Your task to perform on an android device: check android version Image 0: 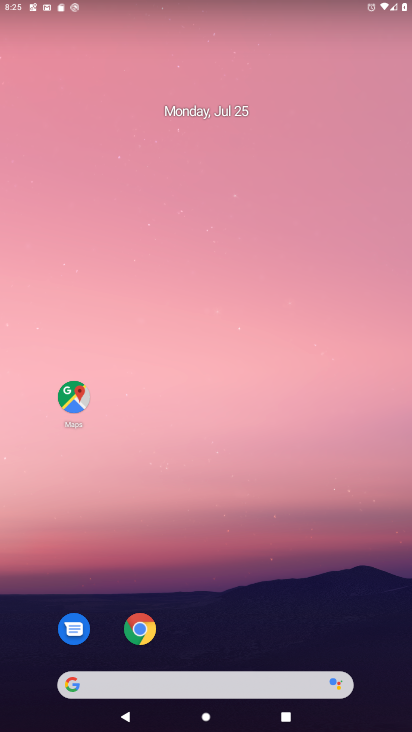
Step 0: drag from (173, 686) to (379, 62)
Your task to perform on an android device: check android version Image 1: 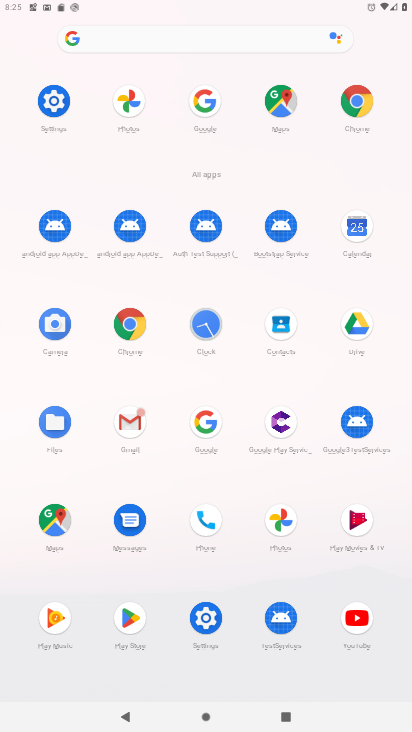
Step 1: click (53, 100)
Your task to perform on an android device: check android version Image 2: 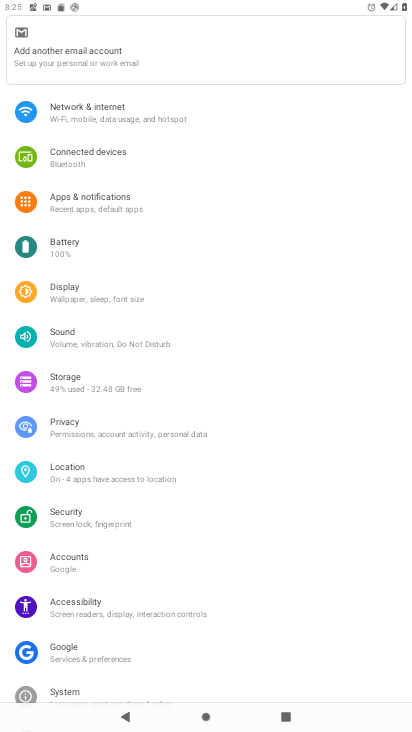
Step 2: drag from (80, 404) to (104, 346)
Your task to perform on an android device: check android version Image 3: 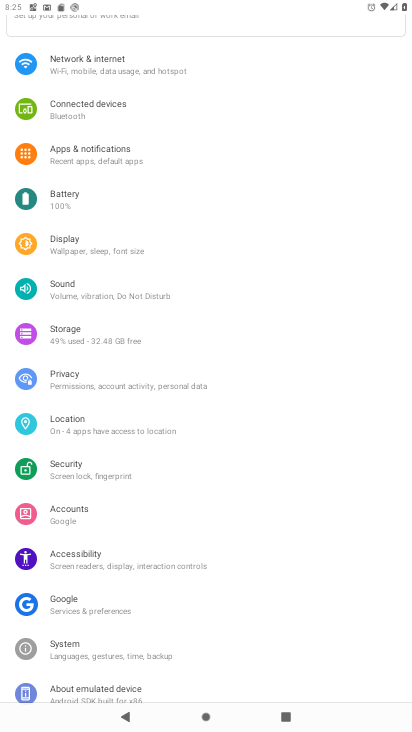
Step 3: drag from (83, 438) to (146, 347)
Your task to perform on an android device: check android version Image 4: 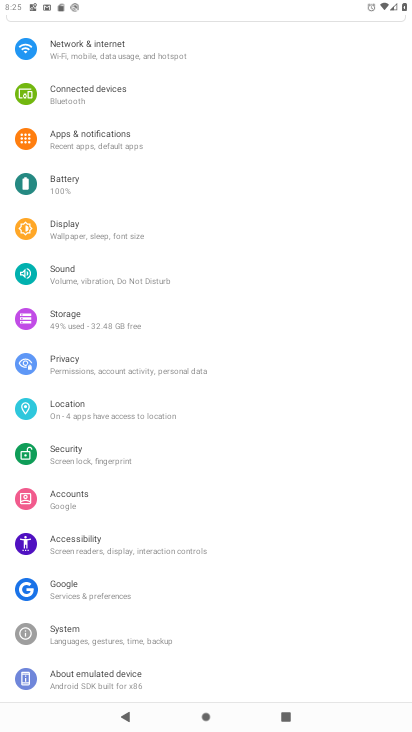
Step 4: click (61, 673)
Your task to perform on an android device: check android version Image 5: 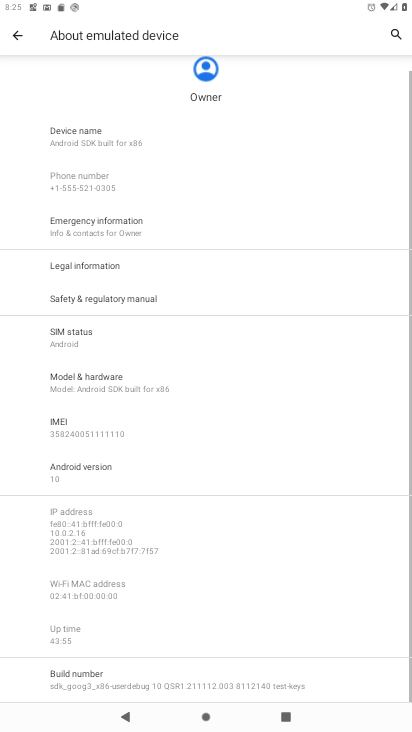
Step 5: click (75, 467)
Your task to perform on an android device: check android version Image 6: 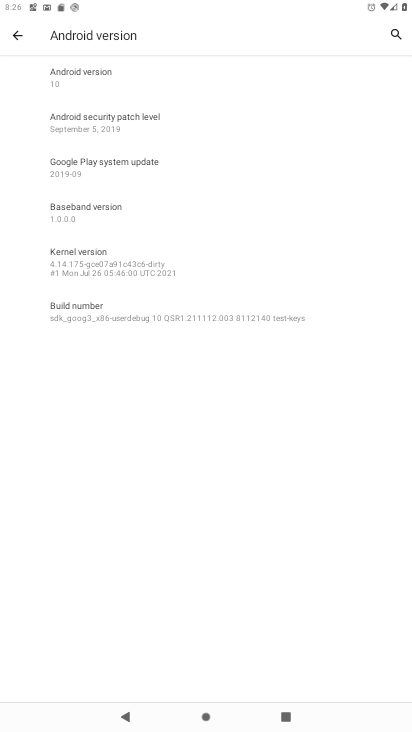
Step 6: task complete